Your task to perform on an android device: Go to location settings Image 0: 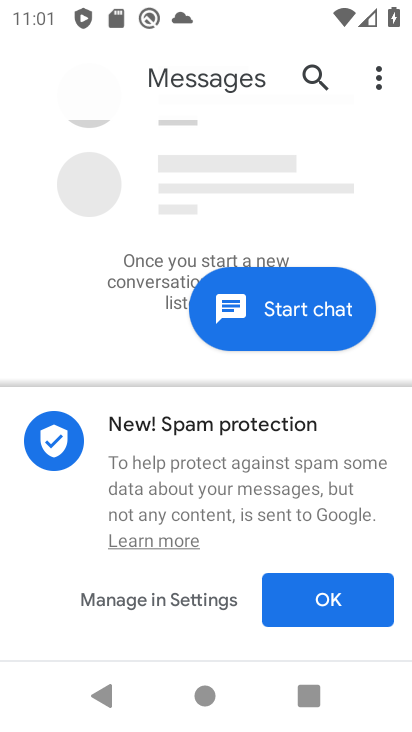
Step 0: press home button
Your task to perform on an android device: Go to location settings Image 1: 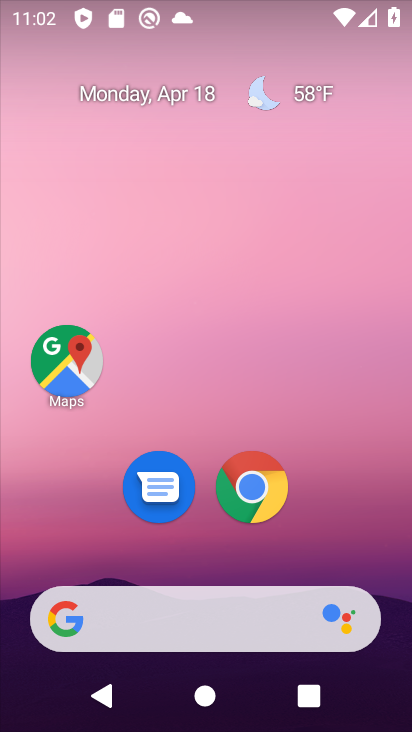
Step 1: drag from (366, 493) to (371, 176)
Your task to perform on an android device: Go to location settings Image 2: 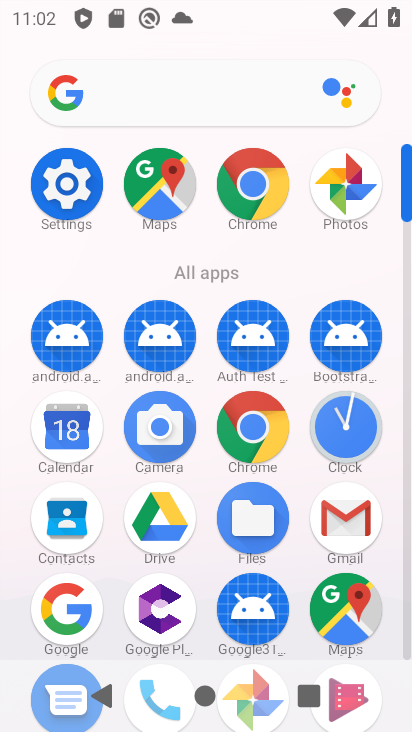
Step 2: drag from (308, 268) to (285, 49)
Your task to perform on an android device: Go to location settings Image 3: 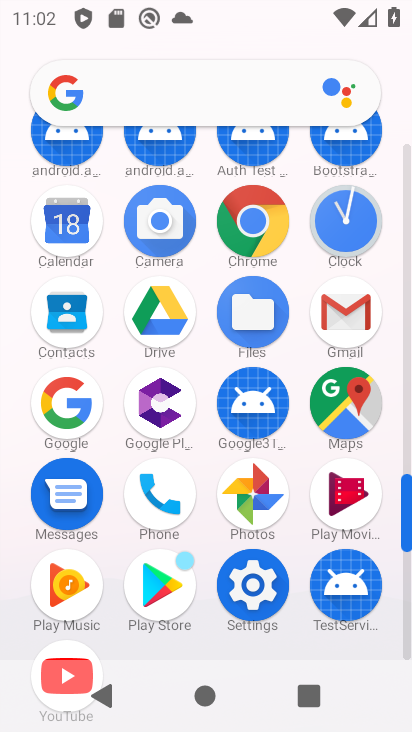
Step 3: click (257, 588)
Your task to perform on an android device: Go to location settings Image 4: 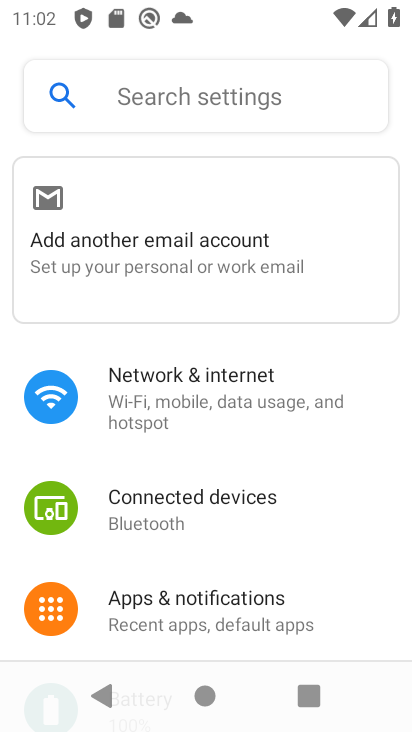
Step 4: drag from (320, 565) to (303, 348)
Your task to perform on an android device: Go to location settings Image 5: 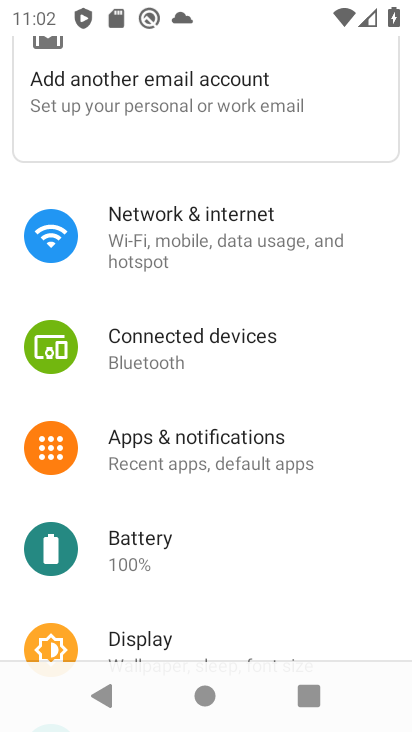
Step 5: drag from (291, 586) to (300, 227)
Your task to perform on an android device: Go to location settings Image 6: 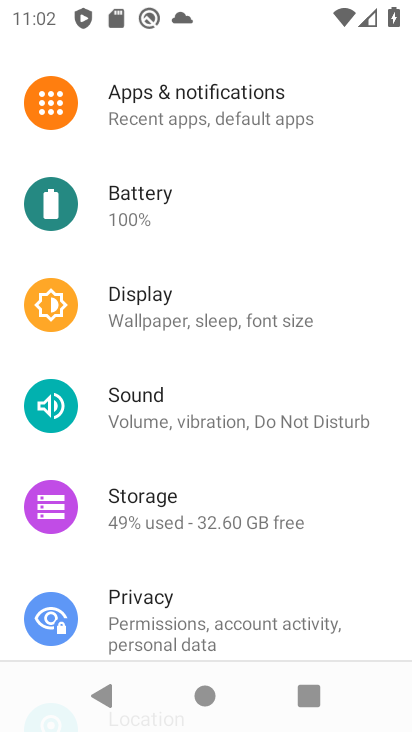
Step 6: drag from (297, 580) to (306, 252)
Your task to perform on an android device: Go to location settings Image 7: 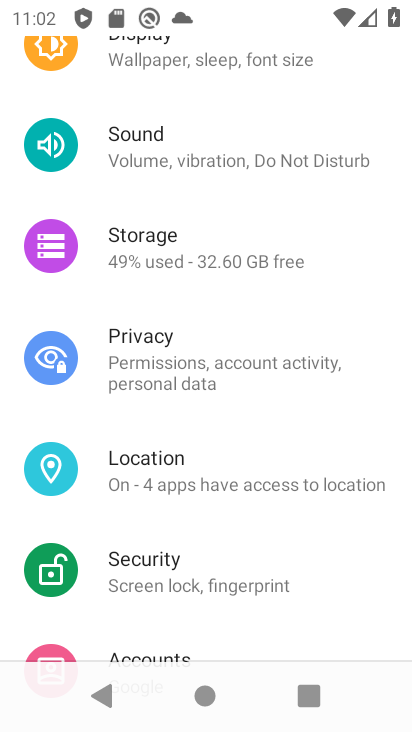
Step 7: click (195, 480)
Your task to perform on an android device: Go to location settings Image 8: 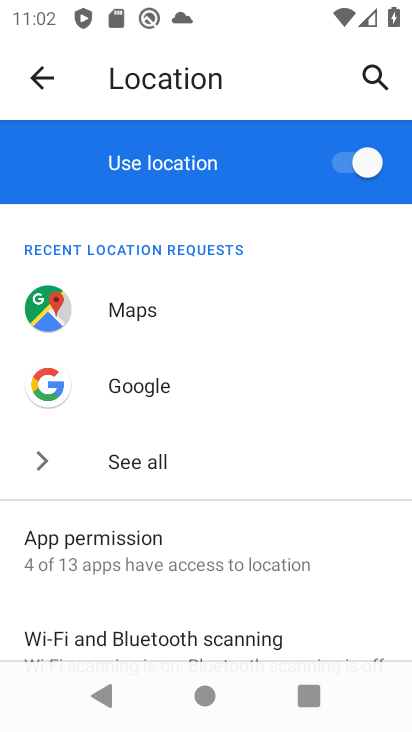
Step 8: task complete